Your task to perform on an android device: Is it going to rain today? Image 0: 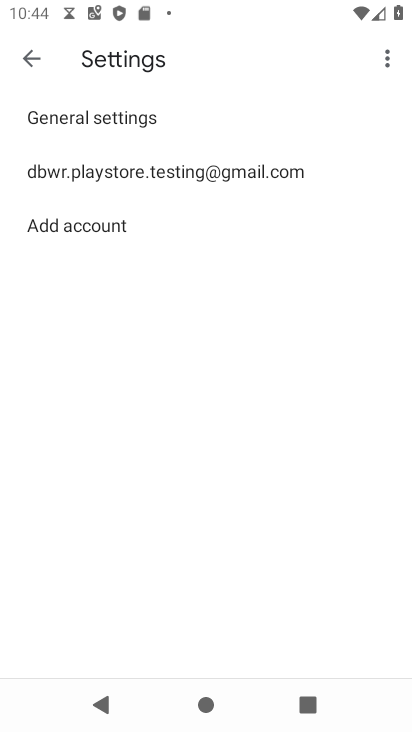
Step 0: press home button
Your task to perform on an android device: Is it going to rain today? Image 1: 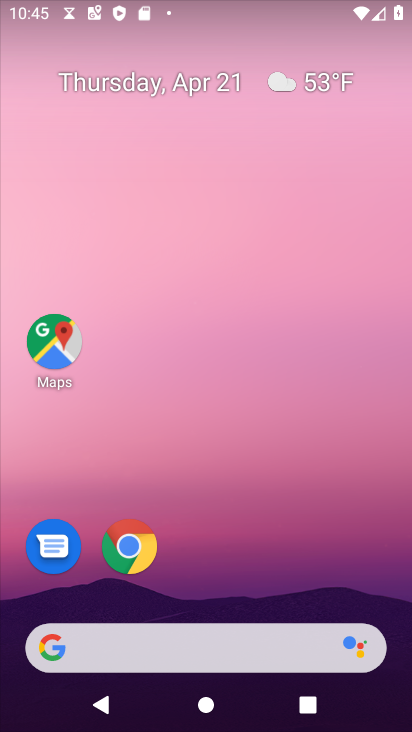
Step 1: drag from (195, 580) to (297, 229)
Your task to perform on an android device: Is it going to rain today? Image 2: 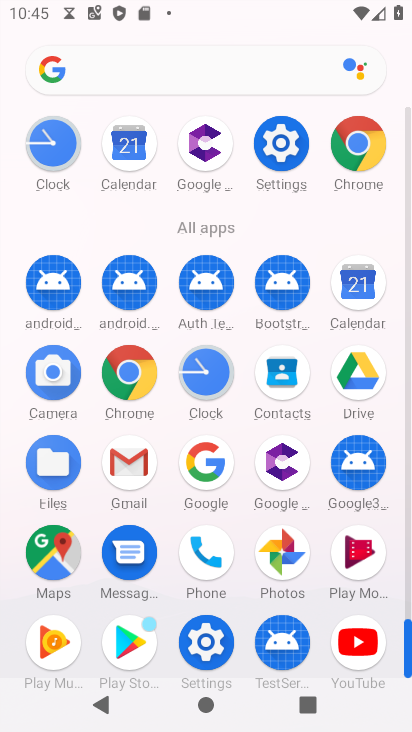
Step 2: click (208, 448)
Your task to perform on an android device: Is it going to rain today? Image 3: 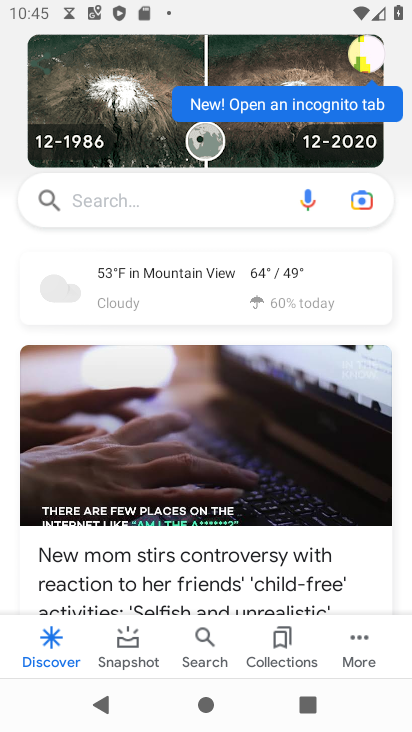
Step 3: click (179, 273)
Your task to perform on an android device: Is it going to rain today? Image 4: 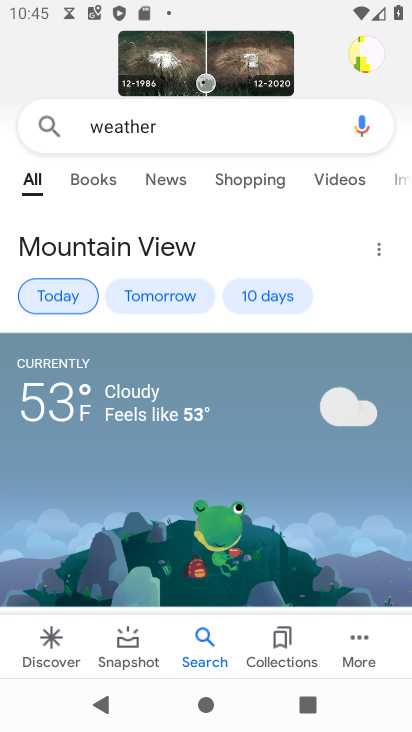
Step 4: task complete